Your task to perform on an android device: check android version Image 0: 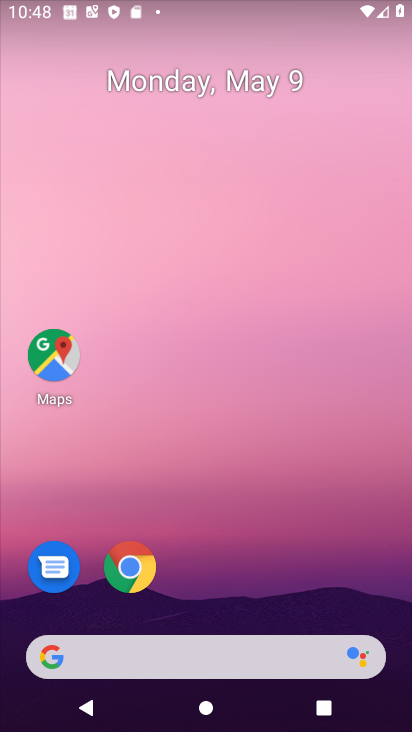
Step 0: drag from (169, 648) to (174, 186)
Your task to perform on an android device: check android version Image 1: 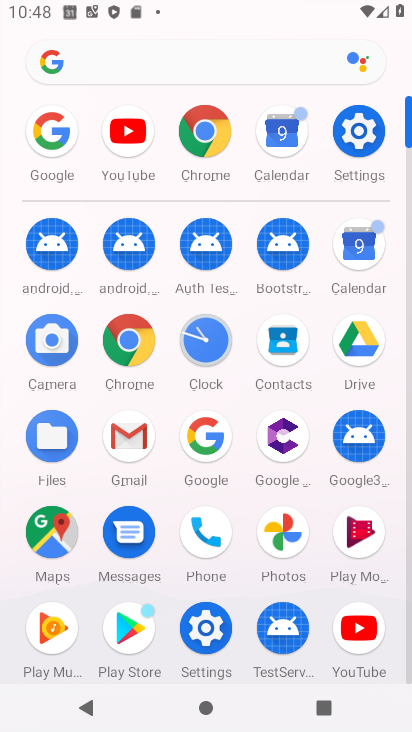
Step 1: click (359, 138)
Your task to perform on an android device: check android version Image 2: 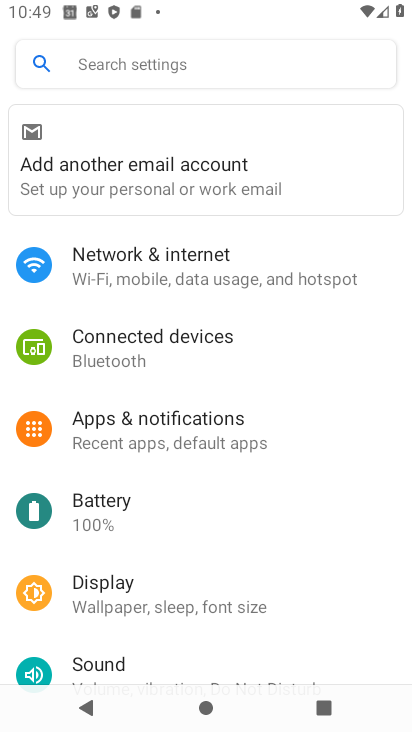
Step 2: drag from (149, 613) to (172, 204)
Your task to perform on an android device: check android version Image 3: 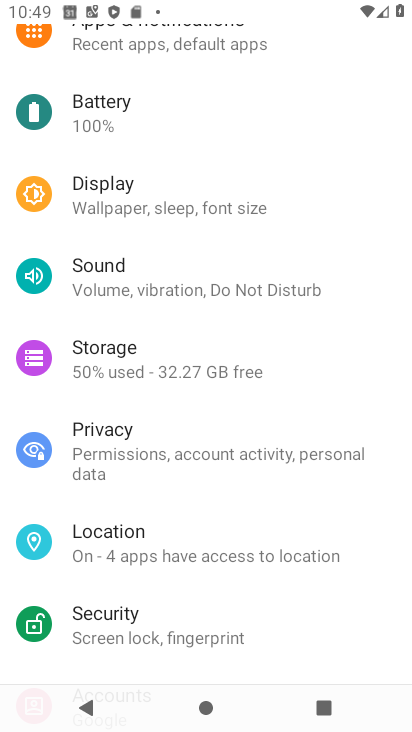
Step 3: drag from (173, 659) to (143, 343)
Your task to perform on an android device: check android version Image 4: 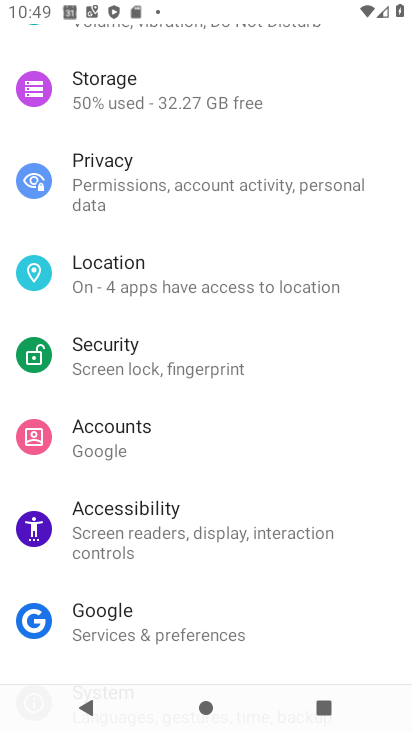
Step 4: drag from (168, 518) to (191, 89)
Your task to perform on an android device: check android version Image 5: 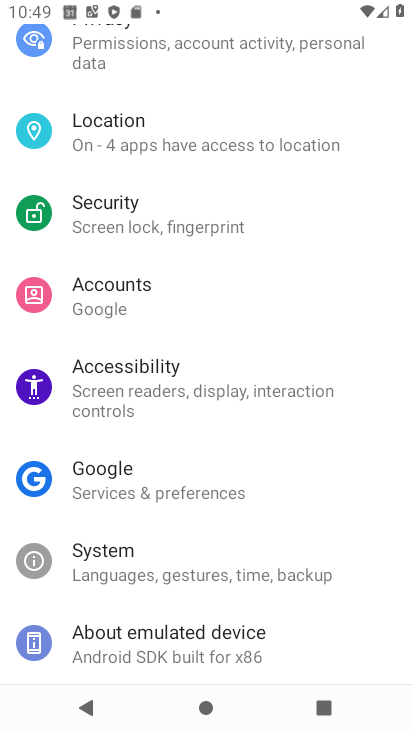
Step 5: click (153, 626)
Your task to perform on an android device: check android version Image 6: 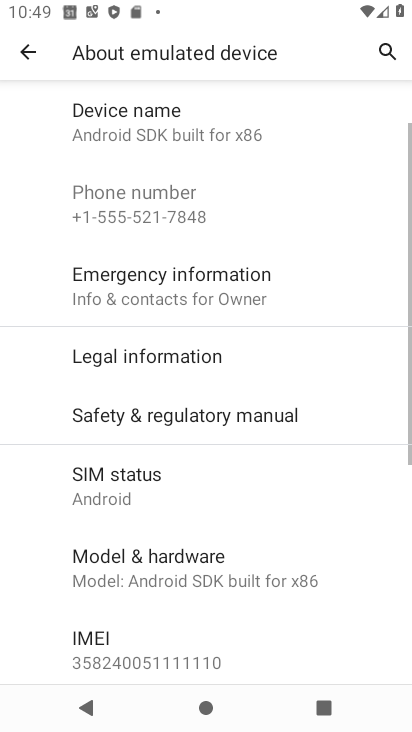
Step 6: drag from (173, 511) to (203, 171)
Your task to perform on an android device: check android version Image 7: 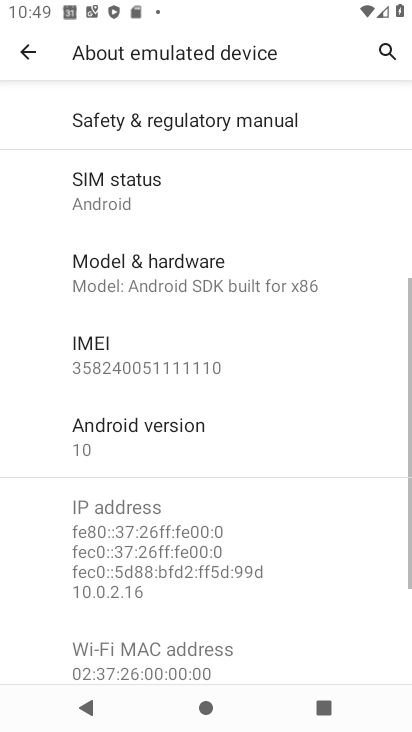
Step 7: click (198, 415)
Your task to perform on an android device: check android version Image 8: 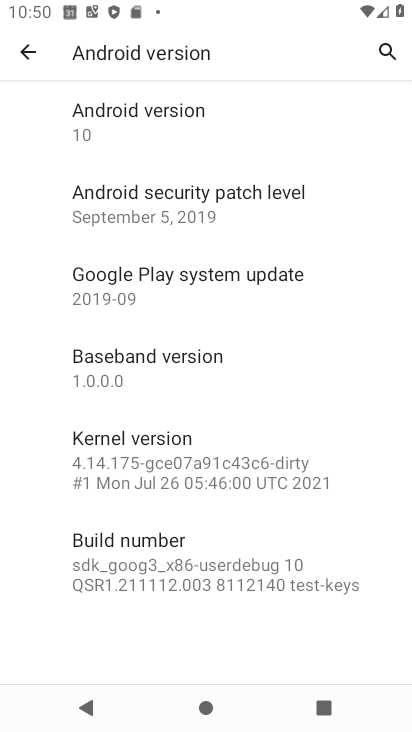
Step 8: click (224, 118)
Your task to perform on an android device: check android version Image 9: 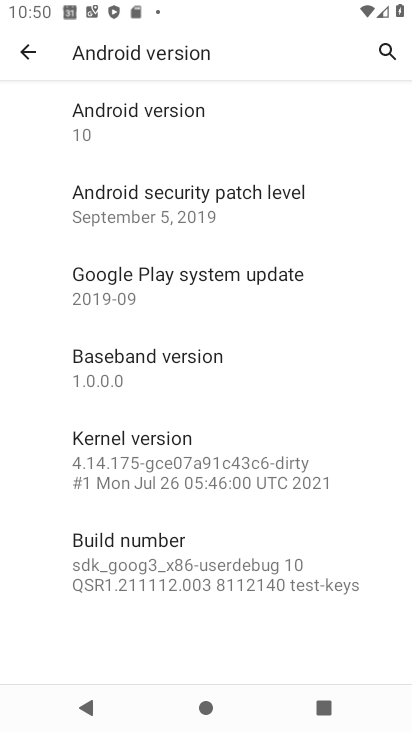
Step 9: task complete